Your task to perform on an android device: Go to calendar. Show me events next week Image 0: 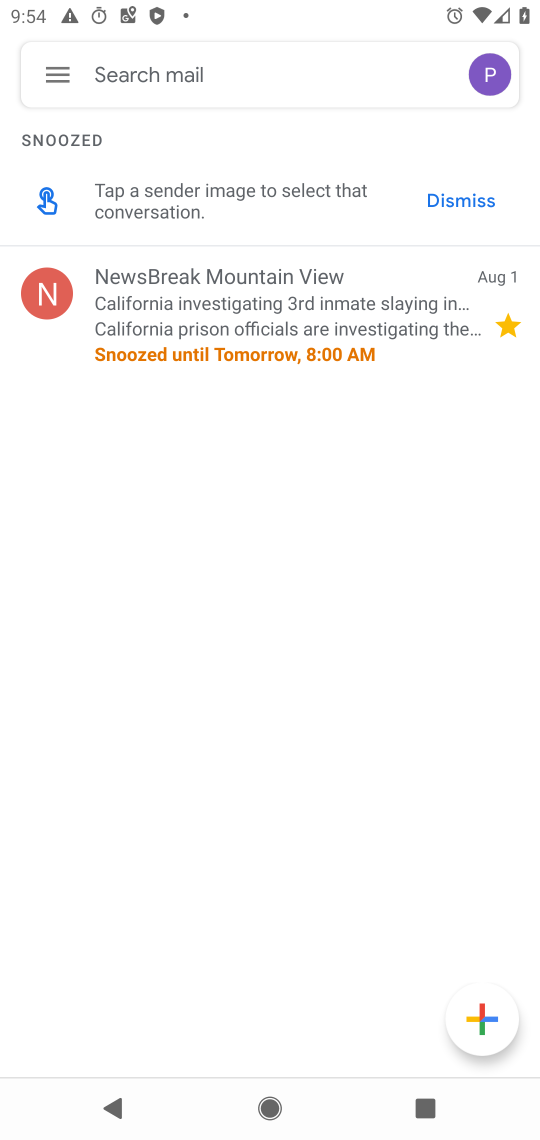
Step 0: press home button
Your task to perform on an android device: Go to calendar. Show me events next week Image 1: 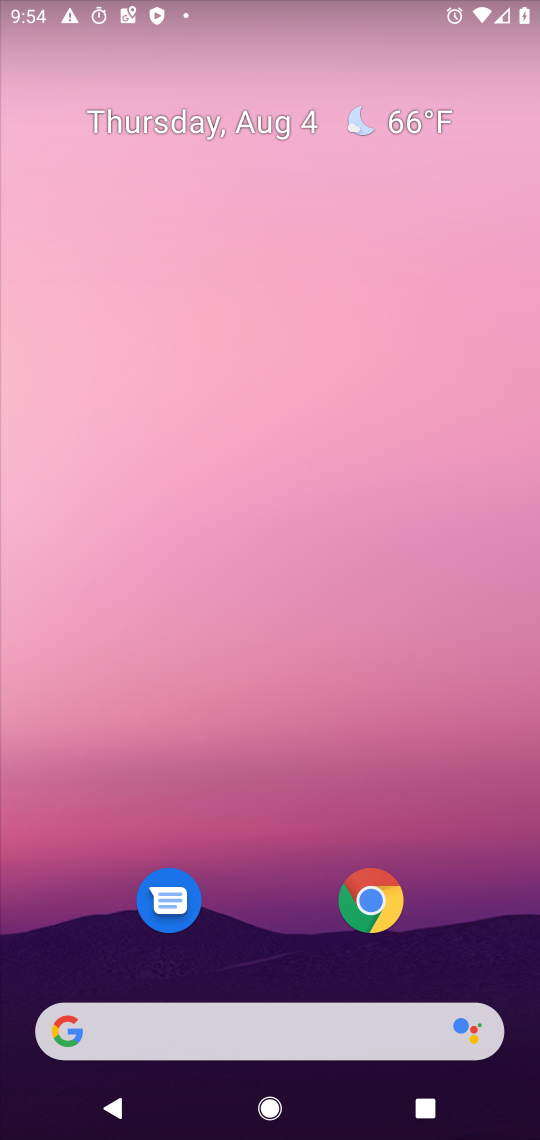
Step 1: drag from (293, 818) to (272, 211)
Your task to perform on an android device: Go to calendar. Show me events next week Image 2: 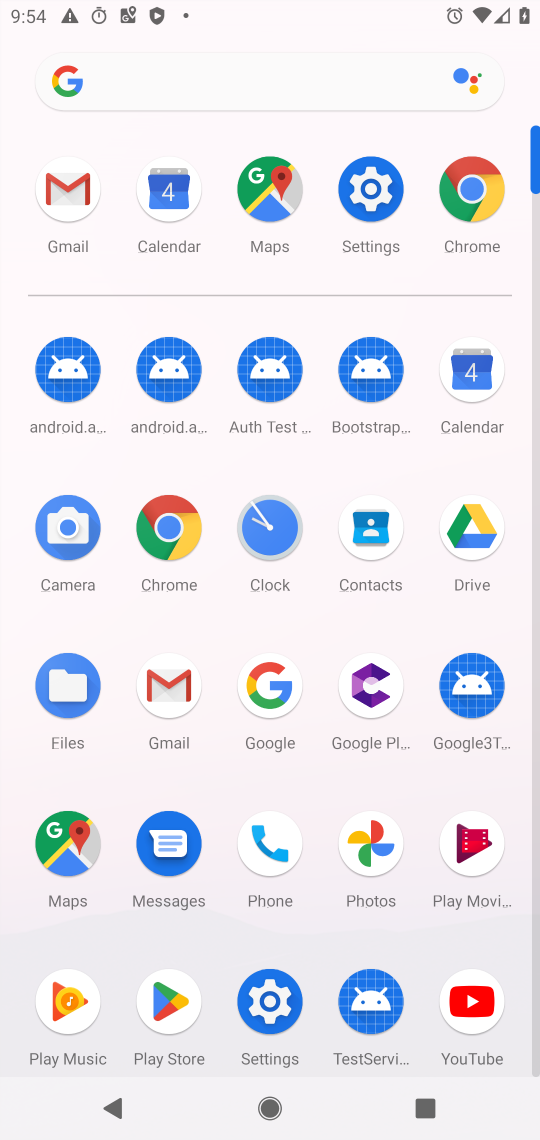
Step 2: click (476, 391)
Your task to perform on an android device: Go to calendar. Show me events next week Image 3: 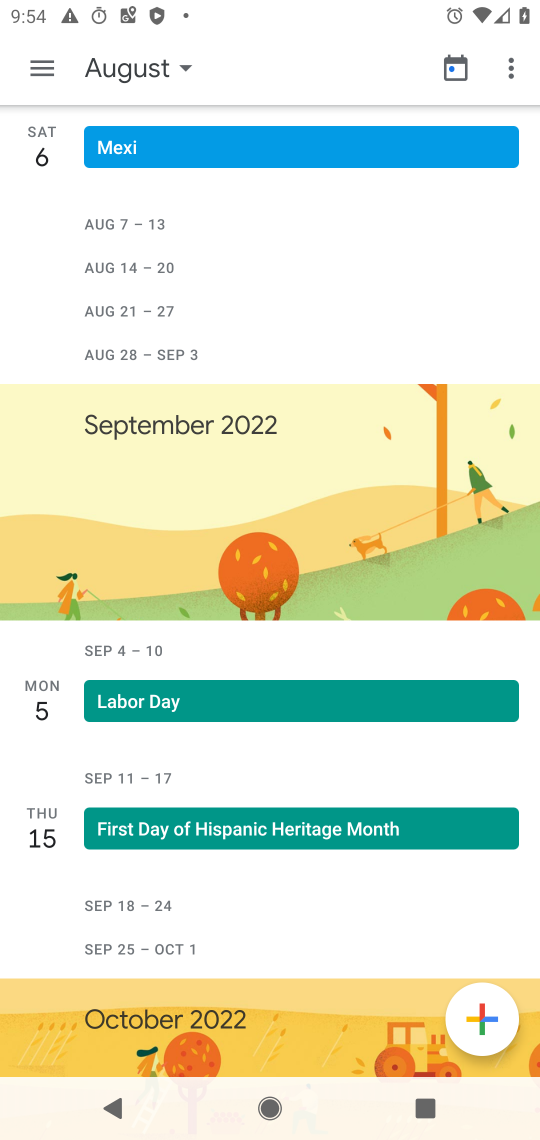
Step 3: click (140, 62)
Your task to perform on an android device: Go to calendar. Show me events next week Image 4: 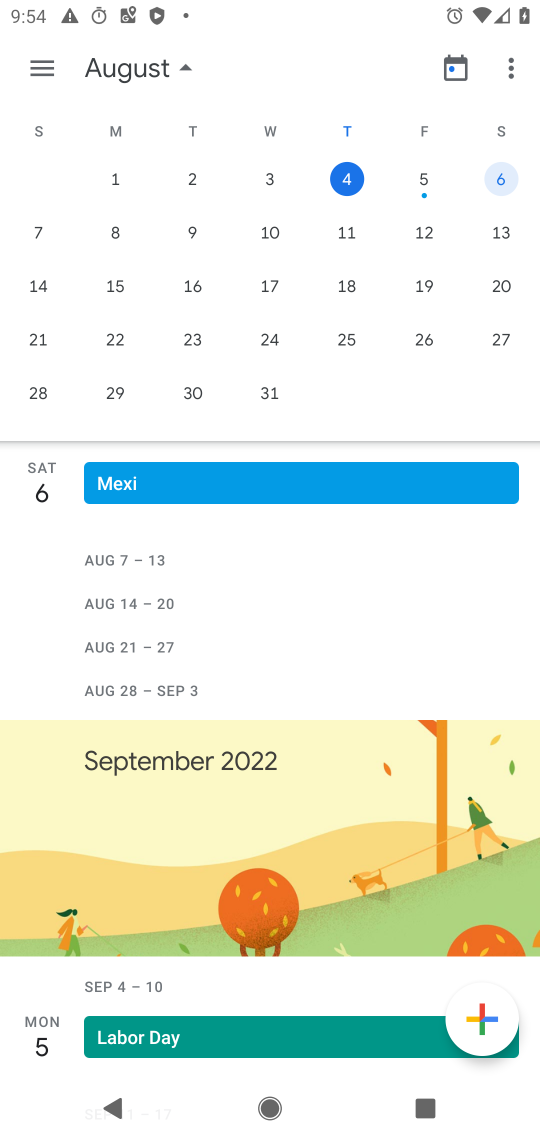
Step 4: click (278, 228)
Your task to perform on an android device: Go to calendar. Show me events next week Image 5: 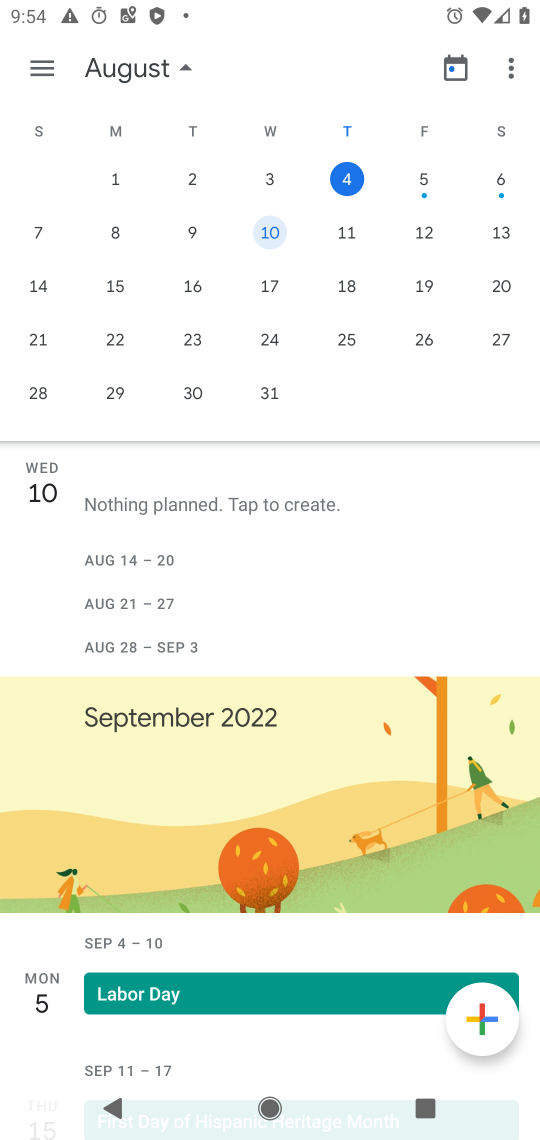
Step 5: click (33, 68)
Your task to perform on an android device: Go to calendar. Show me events next week Image 6: 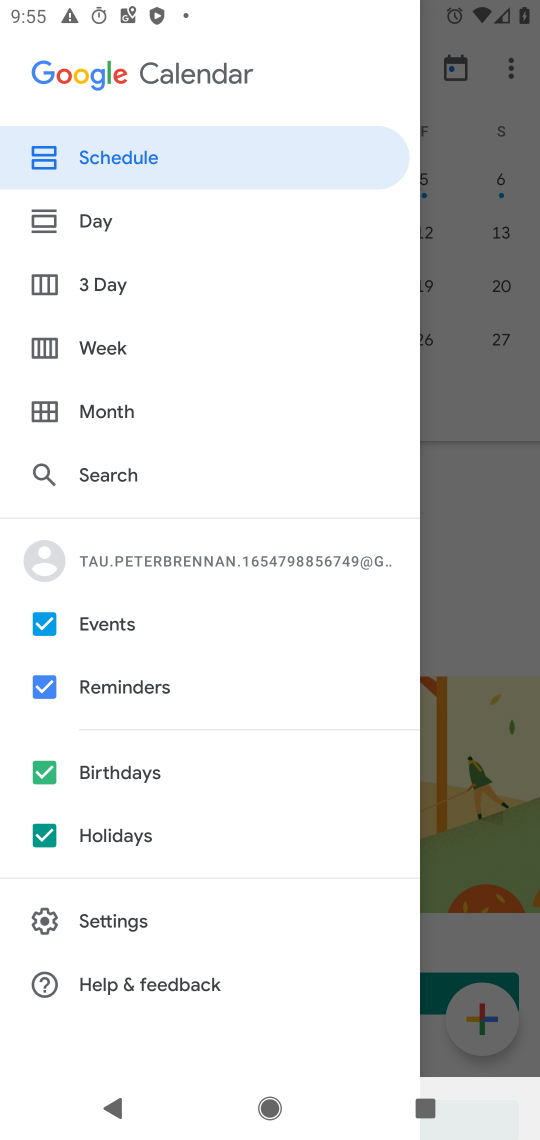
Step 6: click (148, 347)
Your task to perform on an android device: Go to calendar. Show me events next week Image 7: 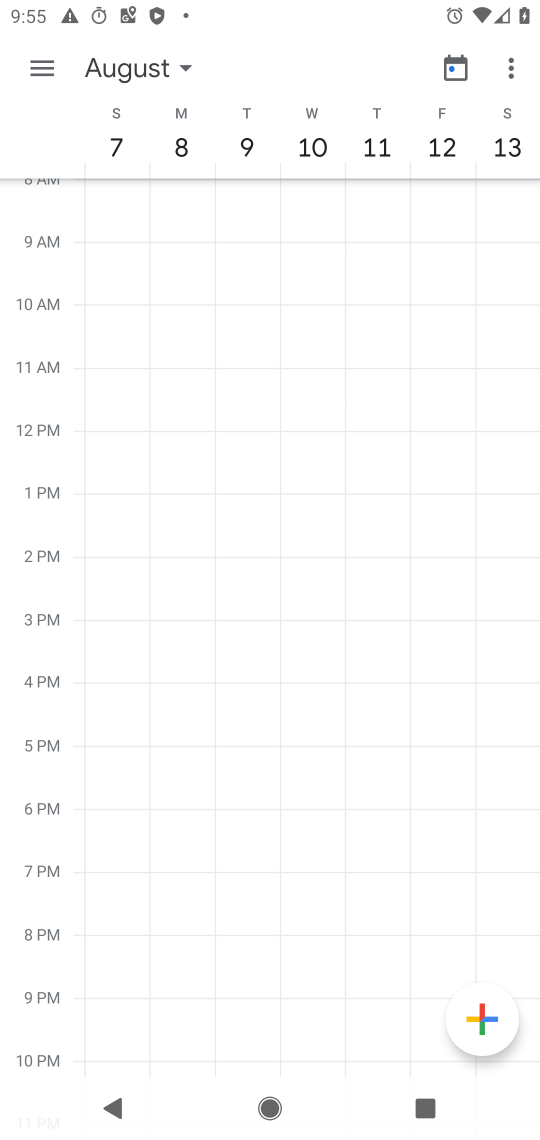
Step 7: task complete